Your task to perform on an android device: check android version Image 0: 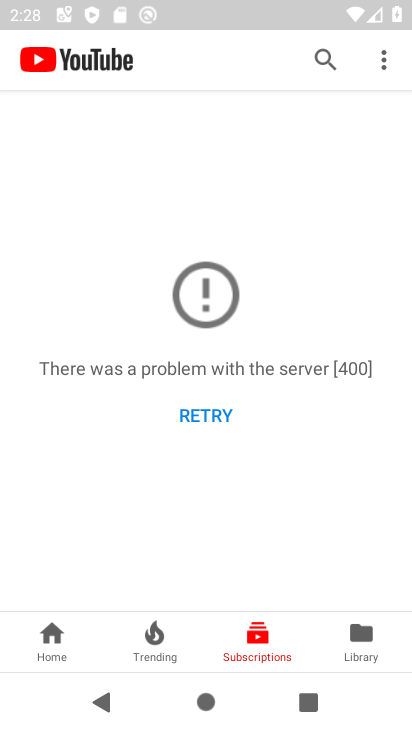
Step 0: press home button
Your task to perform on an android device: check android version Image 1: 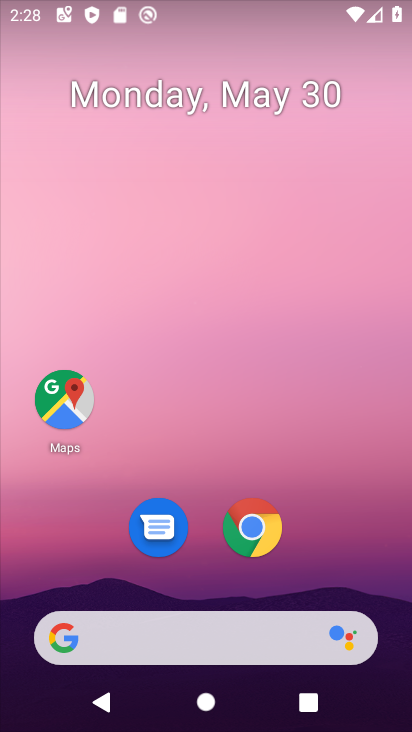
Step 1: drag from (308, 565) to (324, 83)
Your task to perform on an android device: check android version Image 2: 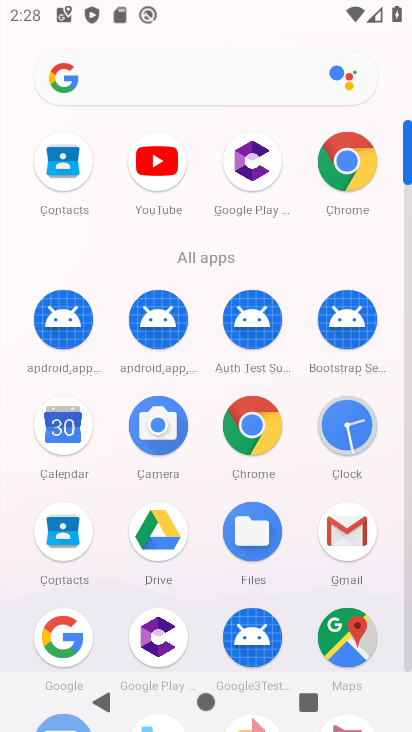
Step 2: drag from (287, 391) to (298, 72)
Your task to perform on an android device: check android version Image 3: 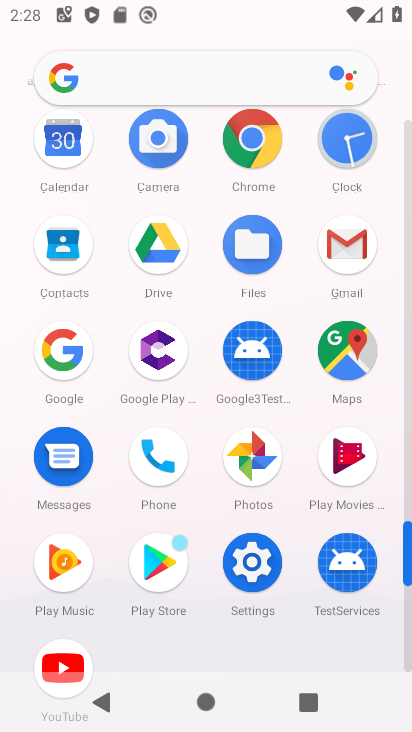
Step 3: click (250, 570)
Your task to perform on an android device: check android version Image 4: 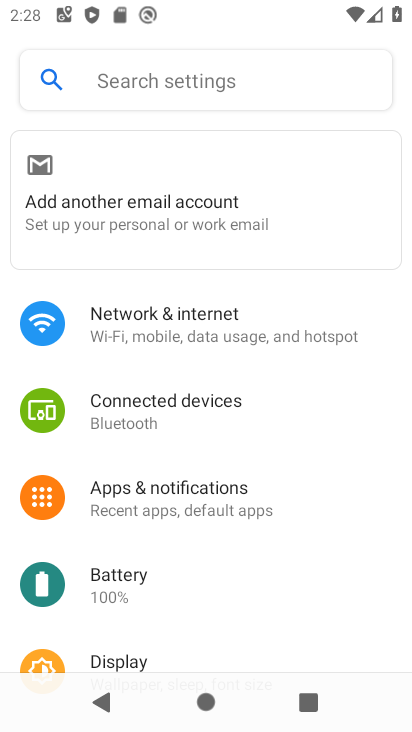
Step 4: drag from (305, 603) to (333, 187)
Your task to perform on an android device: check android version Image 5: 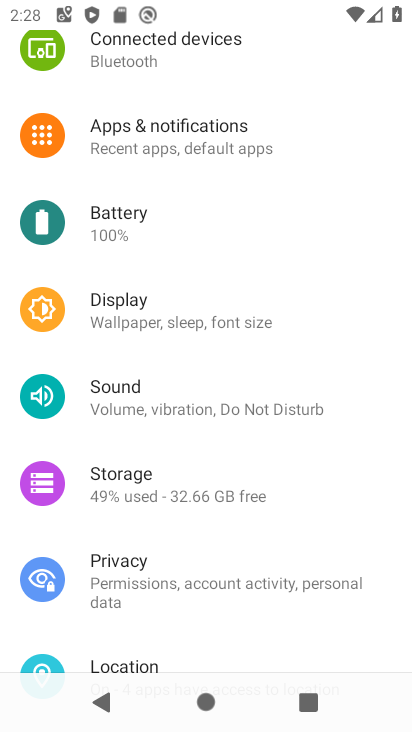
Step 5: drag from (327, 628) to (336, 201)
Your task to perform on an android device: check android version Image 6: 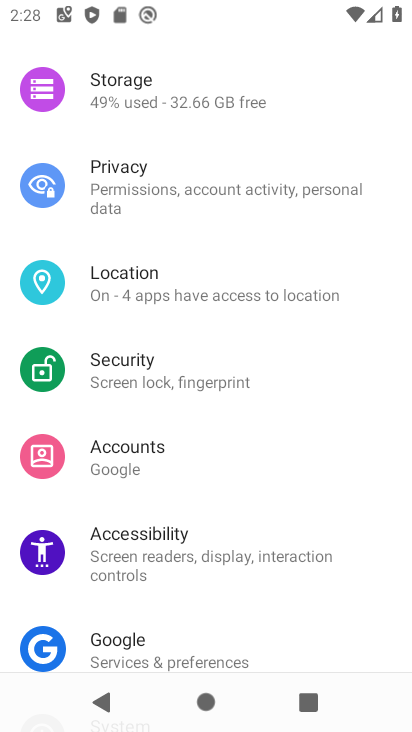
Step 6: drag from (307, 599) to (339, 163)
Your task to perform on an android device: check android version Image 7: 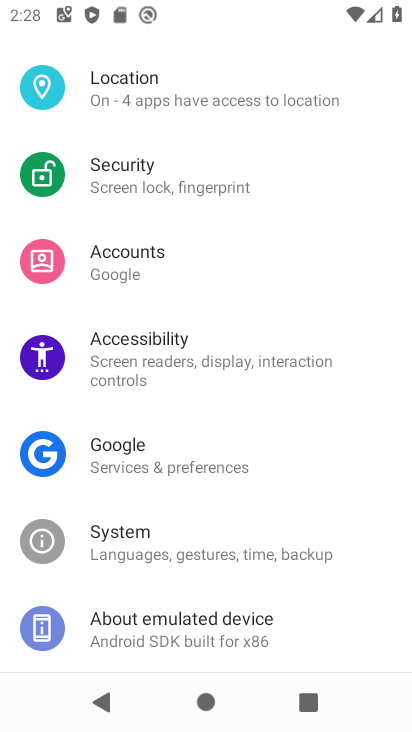
Step 7: click (184, 641)
Your task to perform on an android device: check android version Image 8: 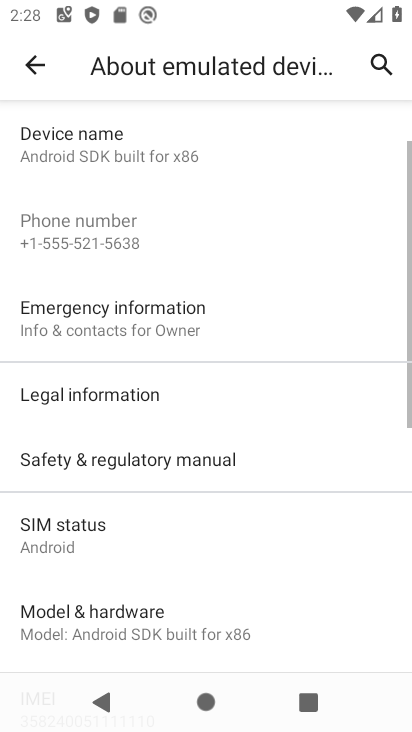
Step 8: drag from (291, 550) to (279, 190)
Your task to perform on an android device: check android version Image 9: 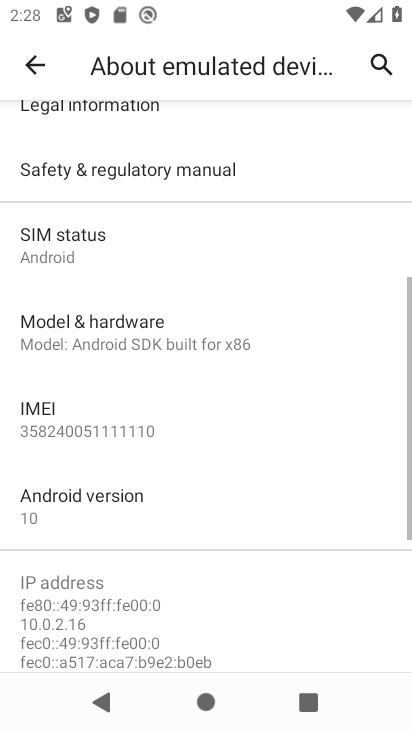
Step 9: drag from (265, 566) to (280, 234)
Your task to perform on an android device: check android version Image 10: 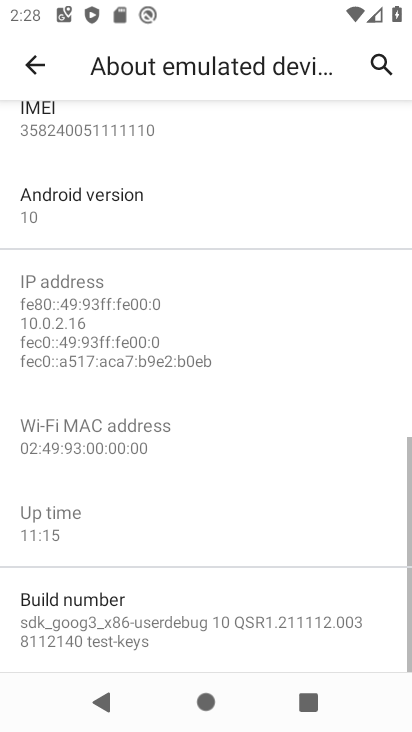
Step 10: click (82, 196)
Your task to perform on an android device: check android version Image 11: 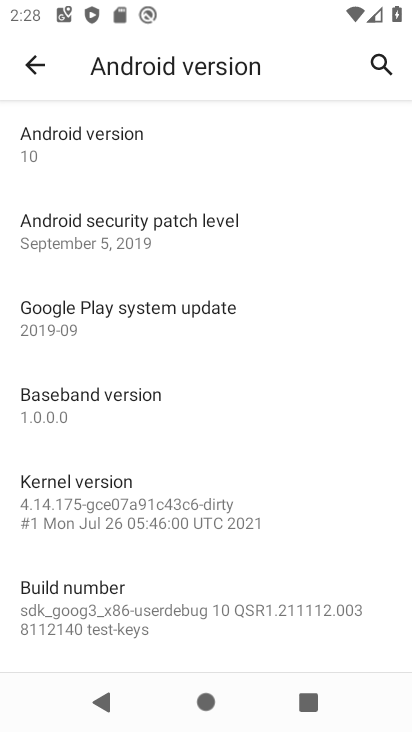
Step 11: task complete